Your task to perform on an android device: move a message to another label in the gmail app Image 0: 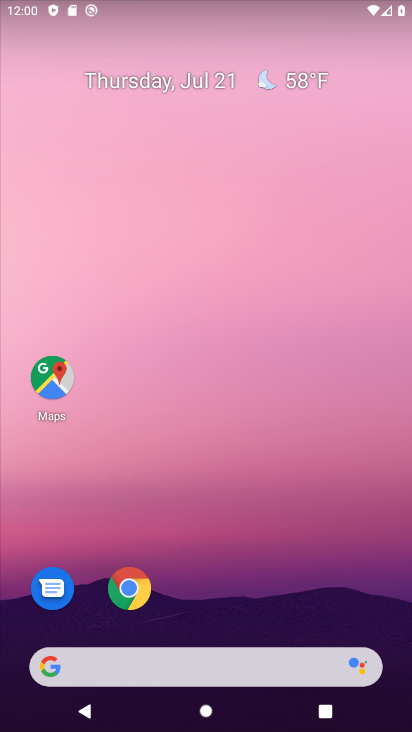
Step 0: drag from (219, 588) to (176, 80)
Your task to perform on an android device: move a message to another label in the gmail app Image 1: 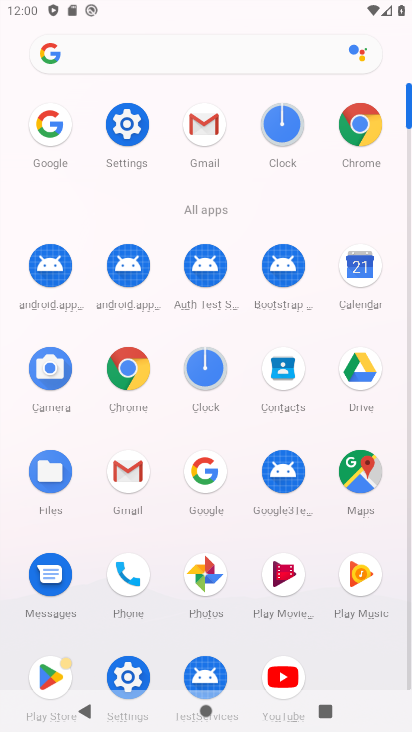
Step 1: click (197, 139)
Your task to perform on an android device: move a message to another label in the gmail app Image 2: 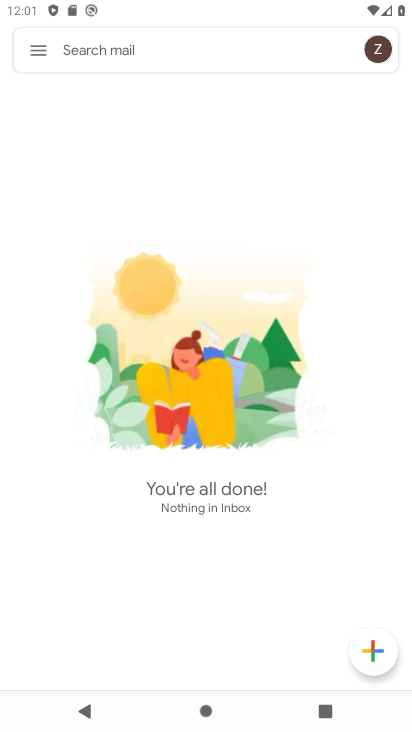
Step 2: click (44, 48)
Your task to perform on an android device: move a message to another label in the gmail app Image 3: 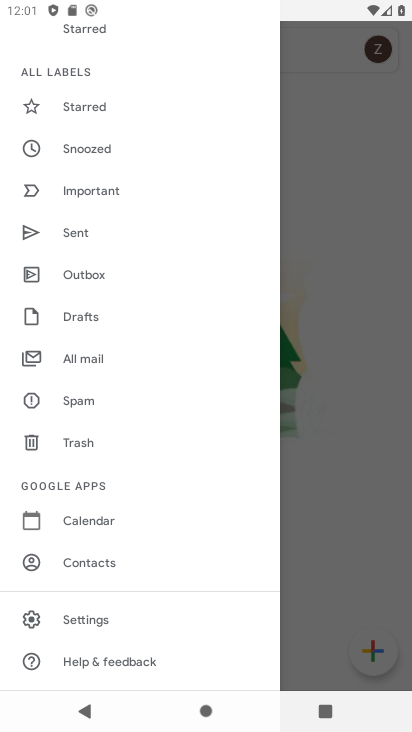
Step 3: click (84, 360)
Your task to perform on an android device: move a message to another label in the gmail app Image 4: 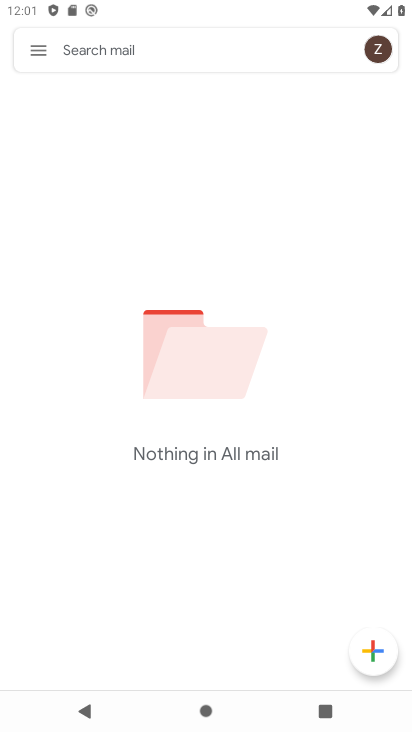
Step 4: task complete